Your task to perform on an android device: Toggle the flashlight Image 0: 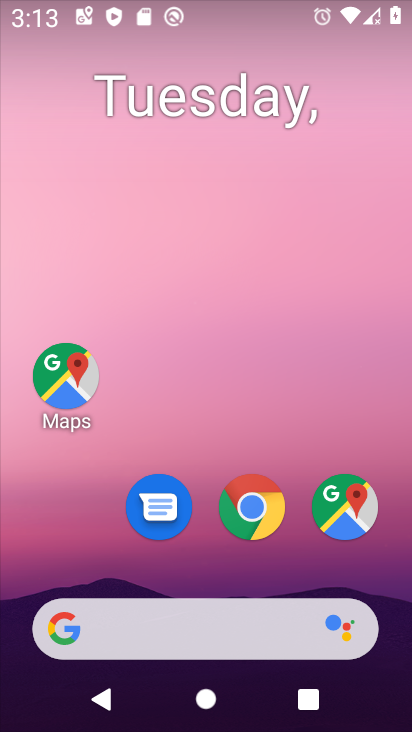
Step 0: drag from (275, 551) to (321, 162)
Your task to perform on an android device: Toggle the flashlight Image 1: 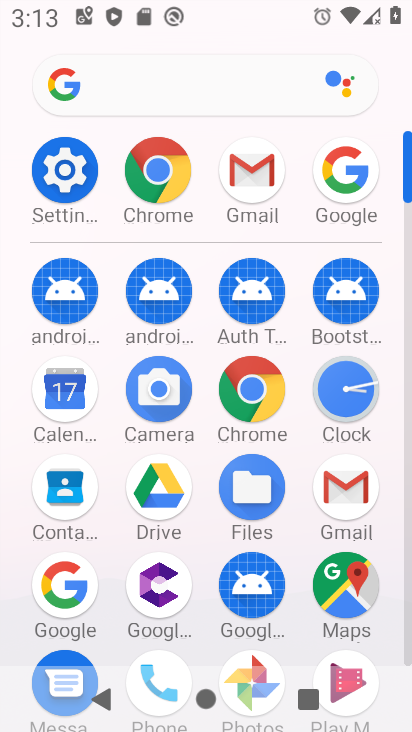
Step 1: click (44, 165)
Your task to perform on an android device: Toggle the flashlight Image 2: 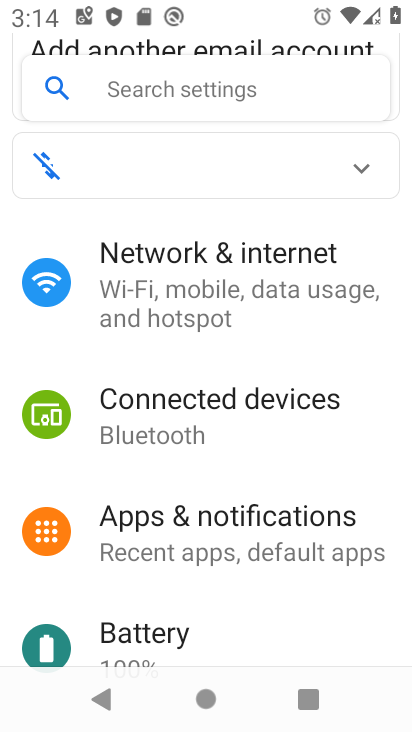
Step 2: task complete